Your task to perform on an android device: delete browsing data in the chrome app Image 0: 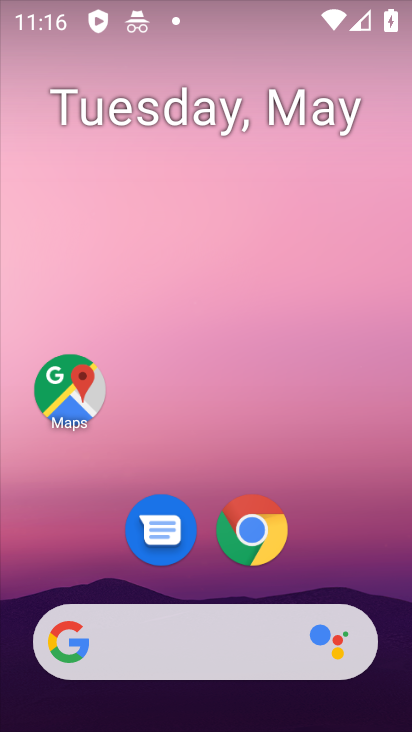
Step 0: click (340, 489)
Your task to perform on an android device: delete browsing data in the chrome app Image 1: 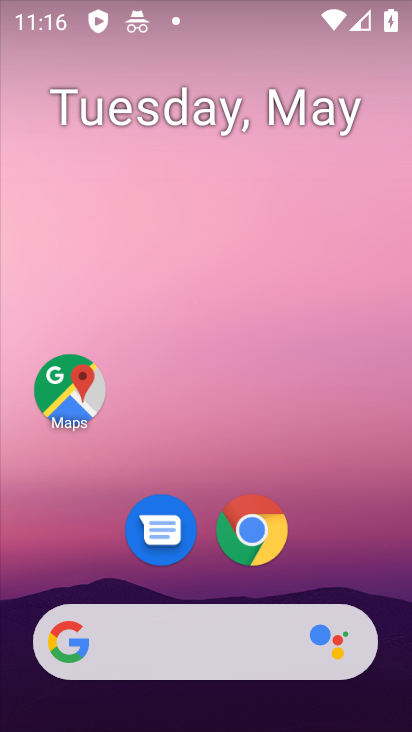
Step 1: drag from (344, 511) to (320, 112)
Your task to perform on an android device: delete browsing data in the chrome app Image 2: 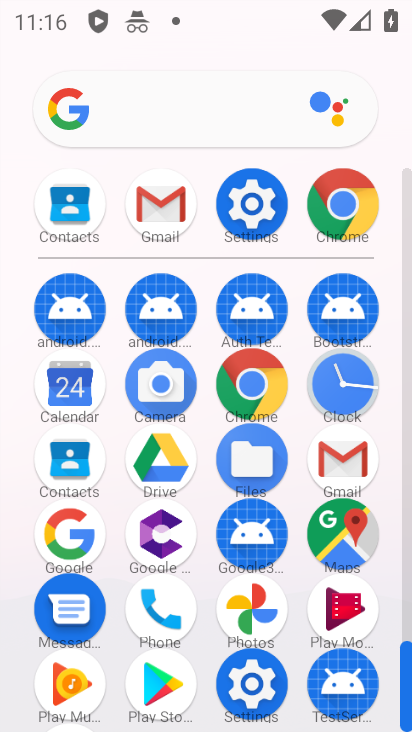
Step 2: click (243, 382)
Your task to perform on an android device: delete browsing data in the chrome app Image 3: 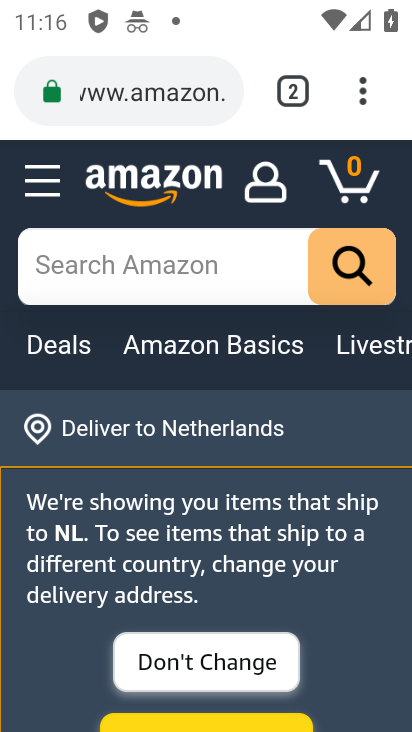
Step 3: drag from (368, 79) to (99, 234)
Your task to perform on an android device: delete browsing data in the chrome app Image 4: 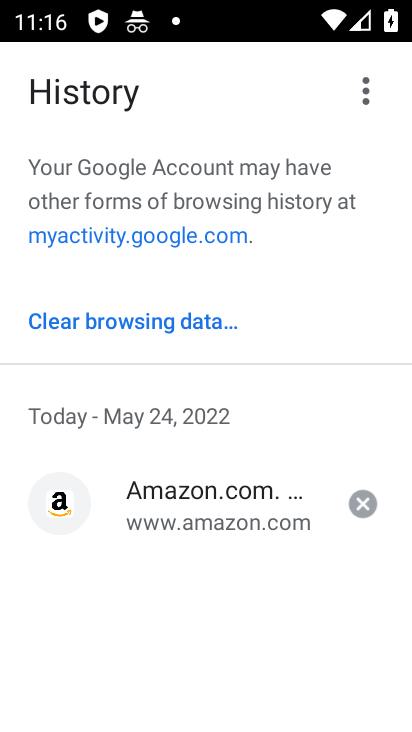
Step 4: click (184, 322)
Your task to perform on an android device: delete browsing data in the chrome app Image 5: 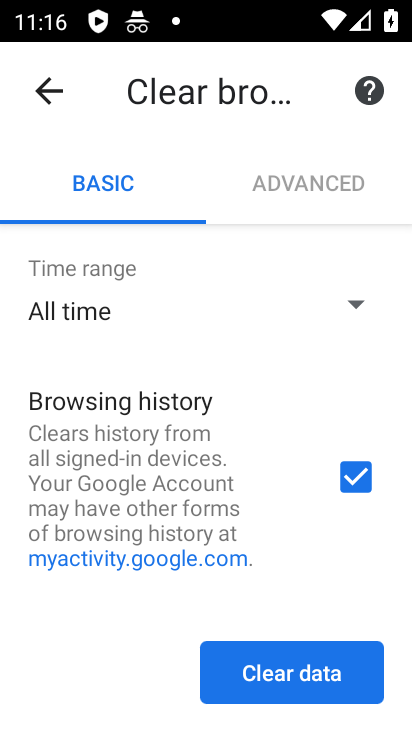
Step 5: click (326, 666)
Your task to perform on an android device: delete browsing data in the chrome app Image 6: 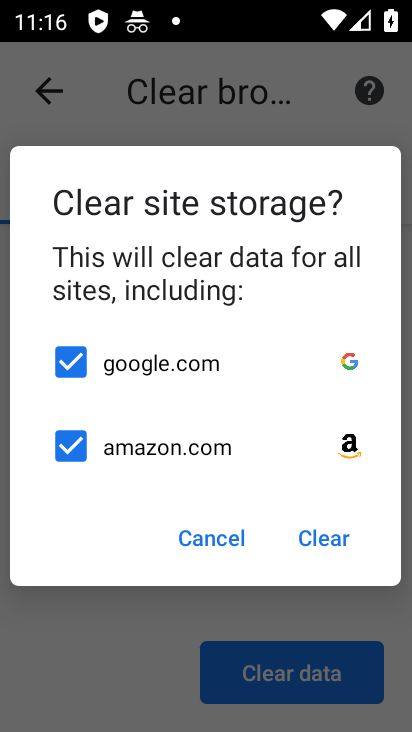
Step 6: click (318, 535)
Your task to perform on an android device: delete browsing data in the chrome app Image 7: 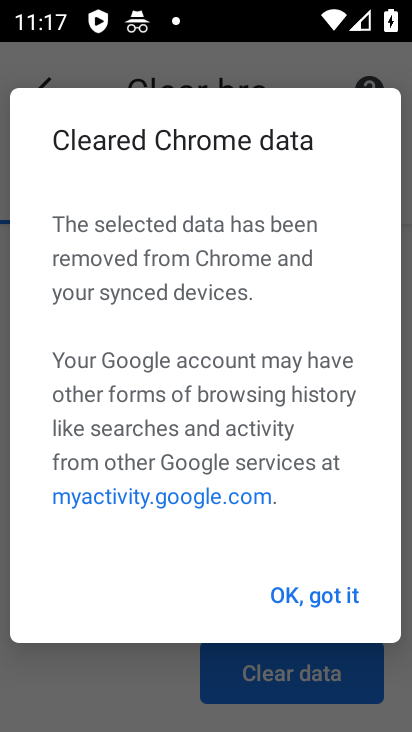
Step 7: click (305, 598)
Your task to perform on an android device: delete browsing data in the chrome app Image 8: 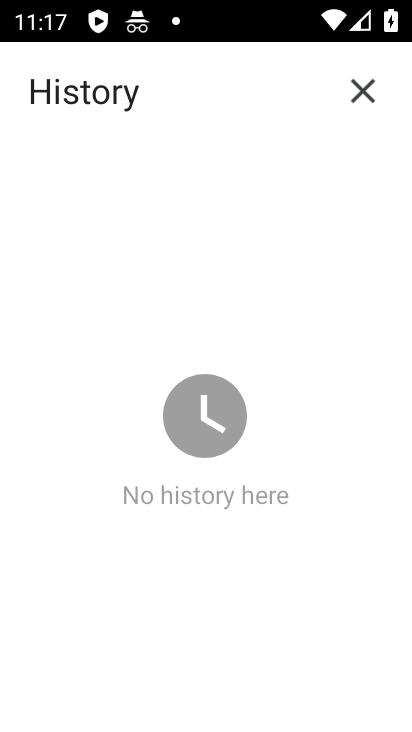
Step 8: task complete